Your task to perform on an android device: Open Chrome and go to the settings page Image 0: 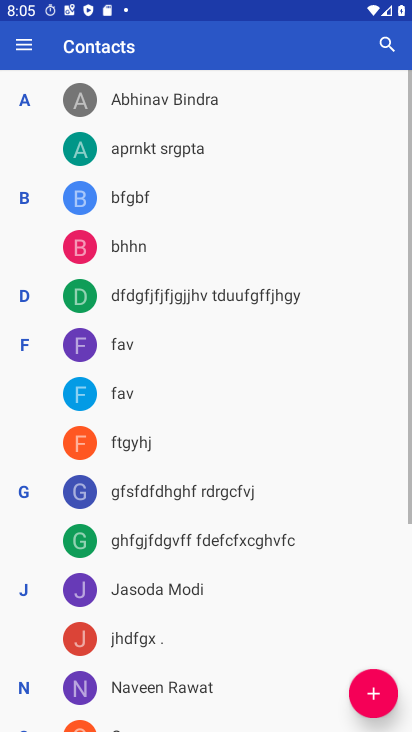
Step 0: press home button
Your task to perform on an android device: Open Chrome and go to the settings page Image 1: 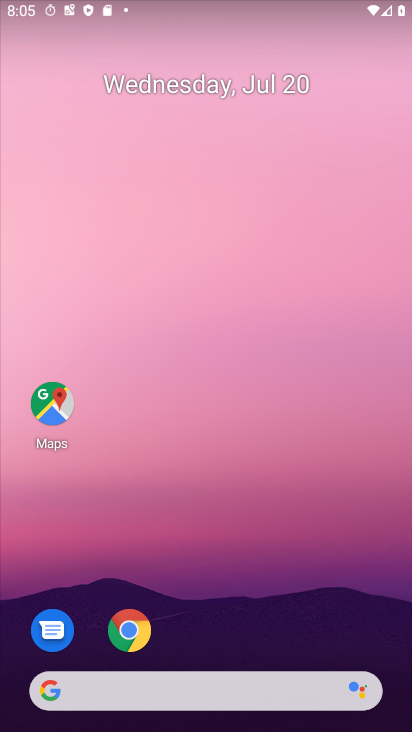
Step 1: drag from (224, 637) to (262, 138)
Your task to perform on an android device: Open Chrome and go to the settings page Image 2: 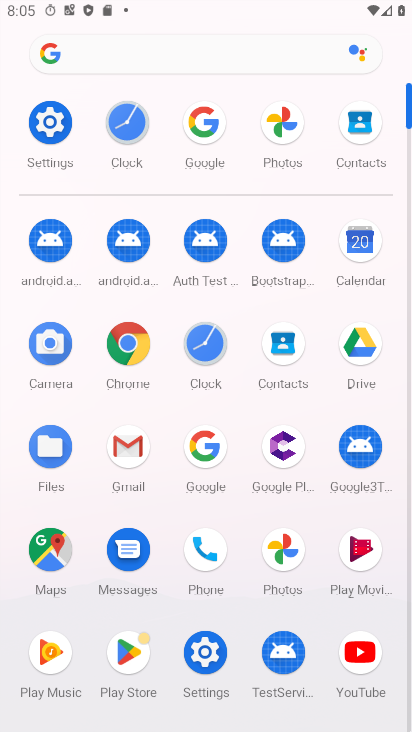
Step 2: drag from (204, 522) to (229, 135)
Your task to perform on an android device: Open Chrome and go to the settings page Image 3: 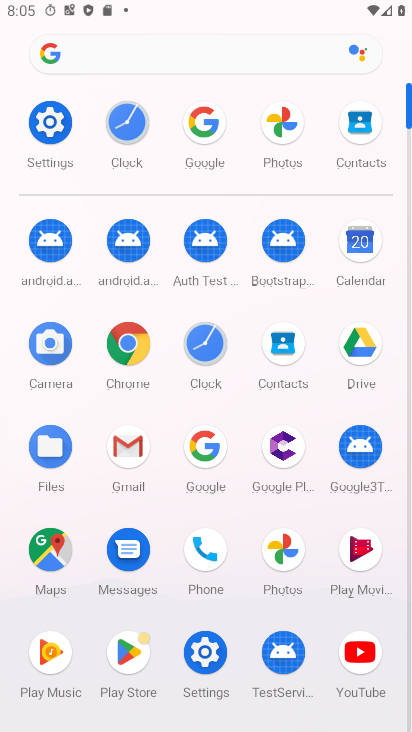
Step 3: click (142, 351)
Your task to perform on an android device: Open Chrome and go to the settings page Image 4: 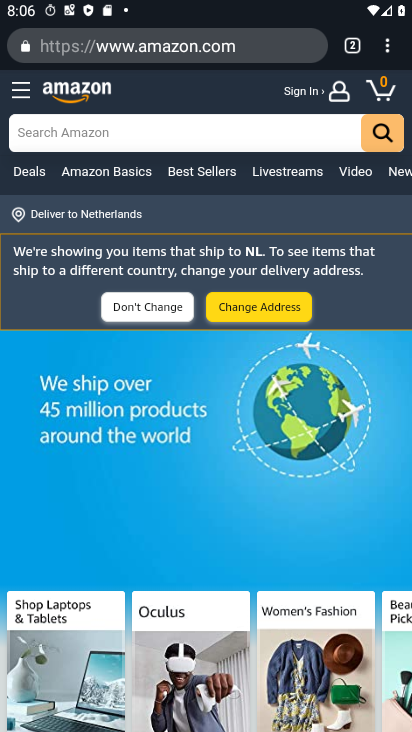
Step 4: click (388, 48)
Your task to perform on an android device: Open Chrome and go to the settings page Image 5: 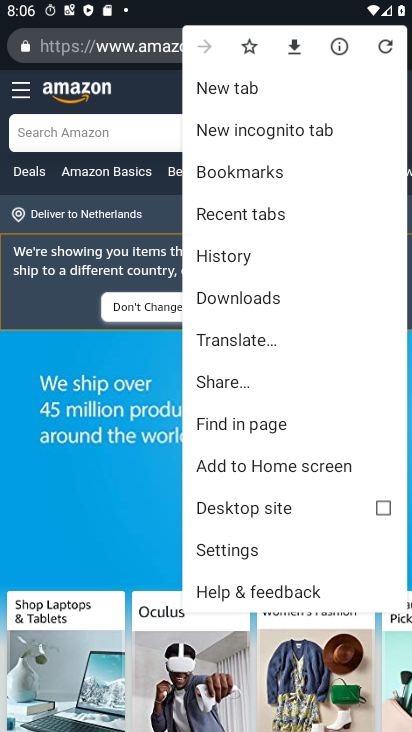
Step 5: click (220, 554)
Your task to perform on an android device: Open Chrome and go to the settings page Image 6: 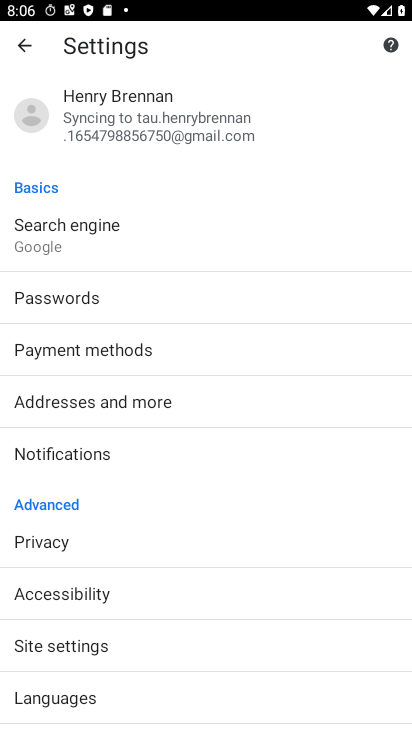
Step 6: task complete